Your task to perform on an android device: Open Chrome and go to the settings page Image 0: 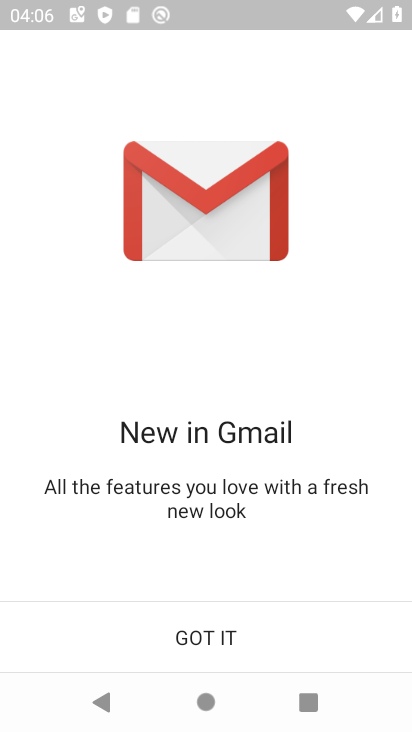
Step 0: press home button
Your task to perform on an android device: Open Chrome and go to the settings page Image 1: 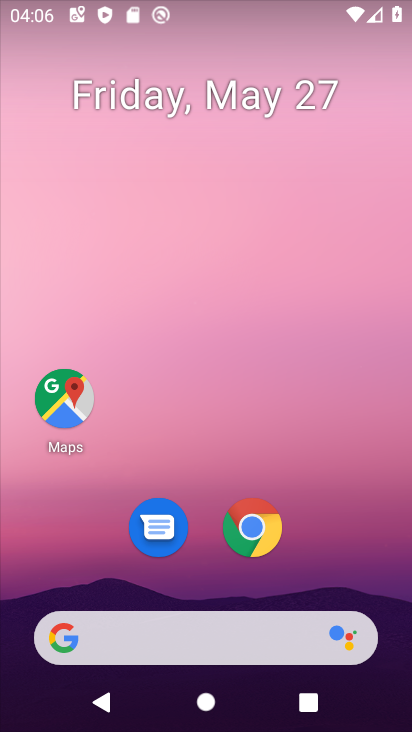
Step 1: drag from (275, 583) to (329, 167)
Your task to perform on an android device: Open Chrome and go to the settings page Image 2: 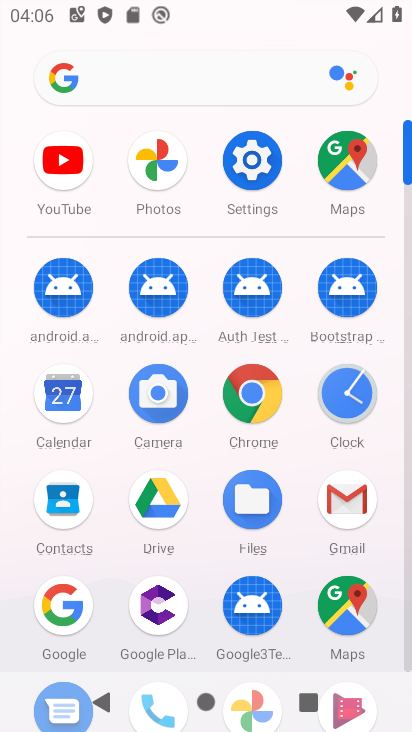
Step 2: click (261, 391)
Your task to perform on an android device: Open Chrome and go to the settings page Image 3: 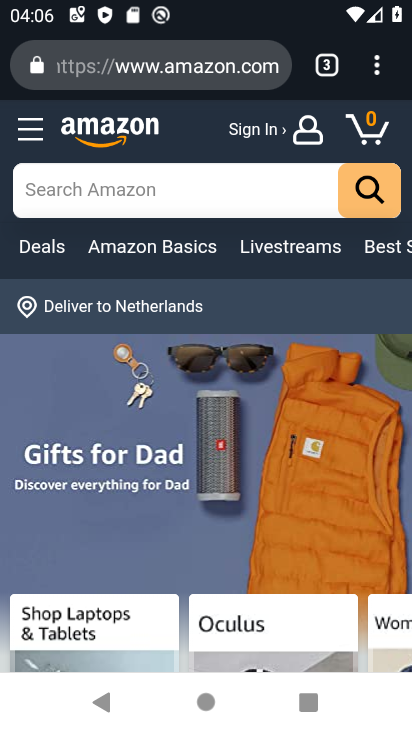
Step 3: task complete